Your task to perform on an android device: Empty the shopping cart on bestbuy. Add razer naga to the cart on bestbuy, then select checkout. Image 0: 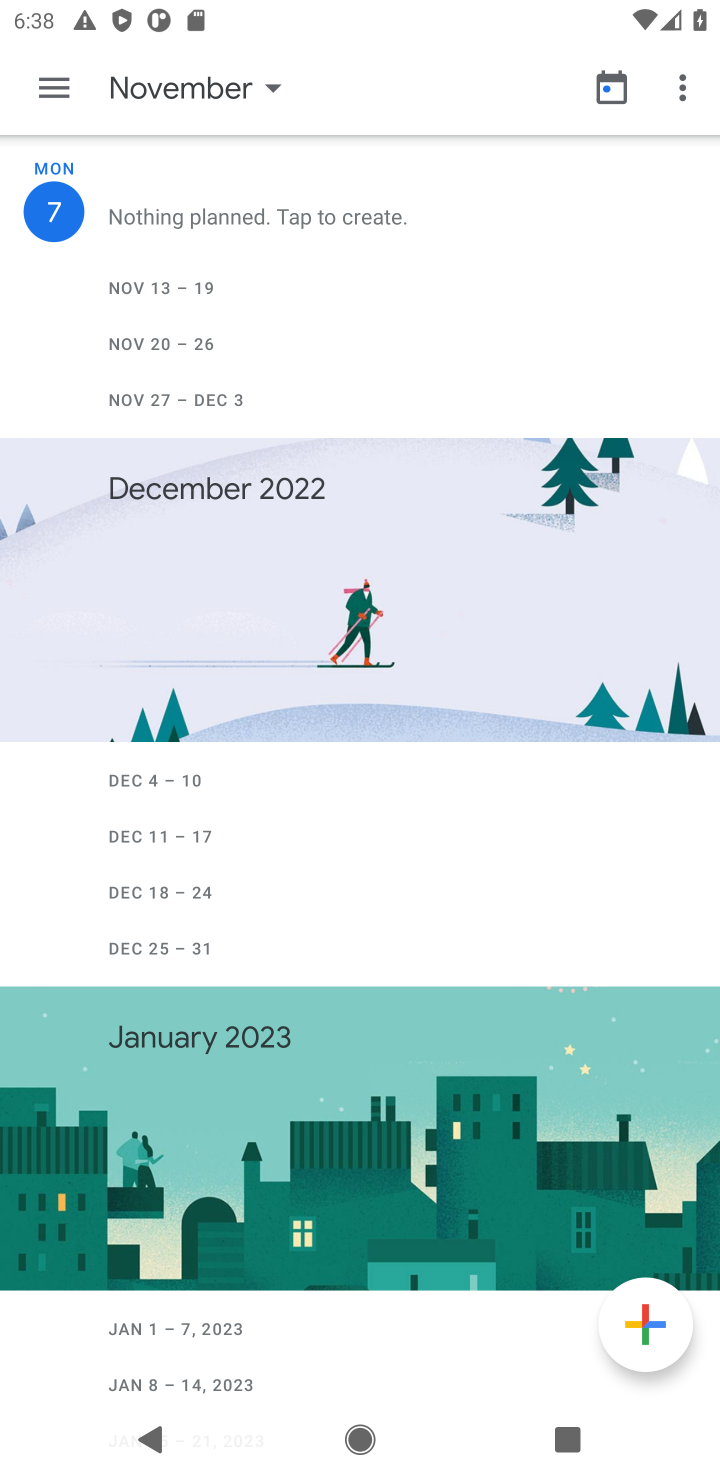
Step 0: press home button
Your task to perform on an android device: Empty the shopping cart on bestbuy. Add razer naga to the cart on bestbuy, then select checkout. Image 1: 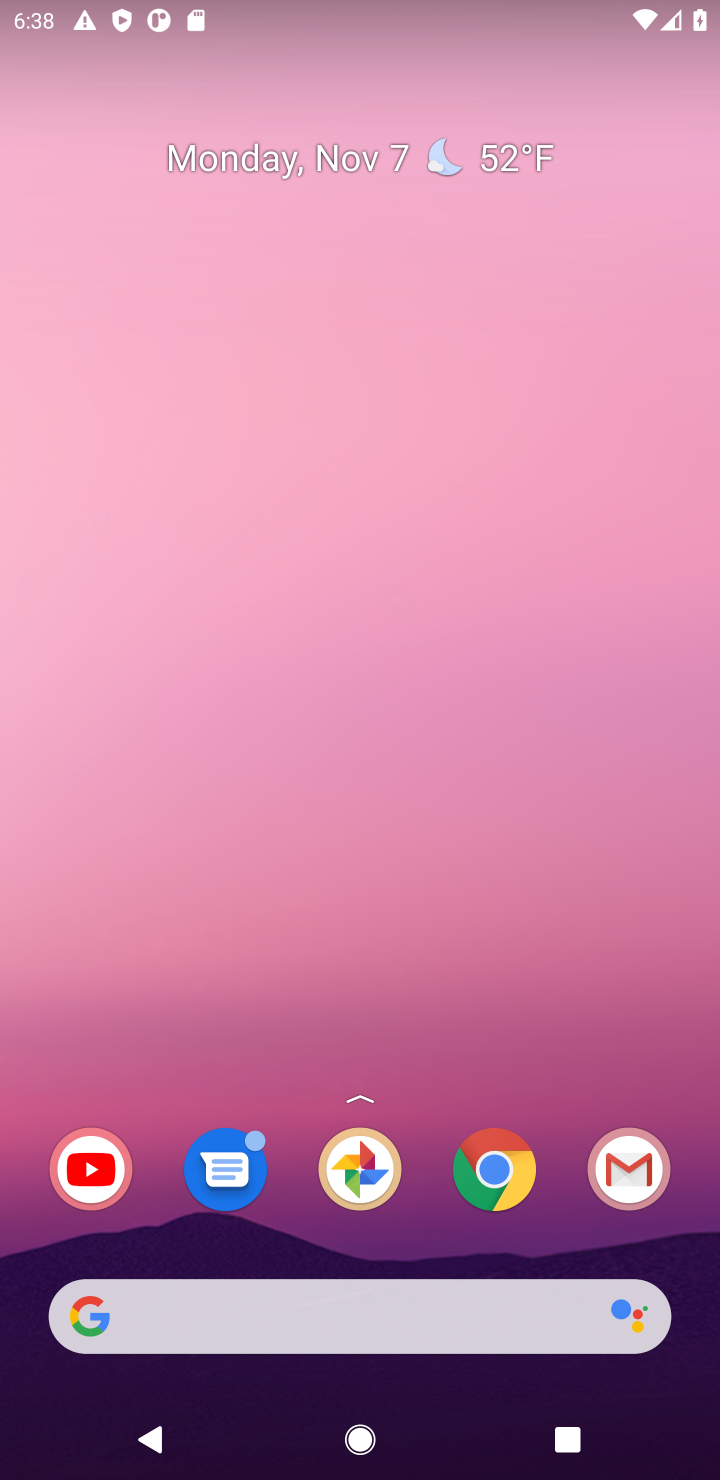
Step 1: click (497, 1201)
Your task to perform on an android device: Empty the shopping cart on bestbuy. Add razer naga to the cart on bestbuy, then select checkout. Image 2: 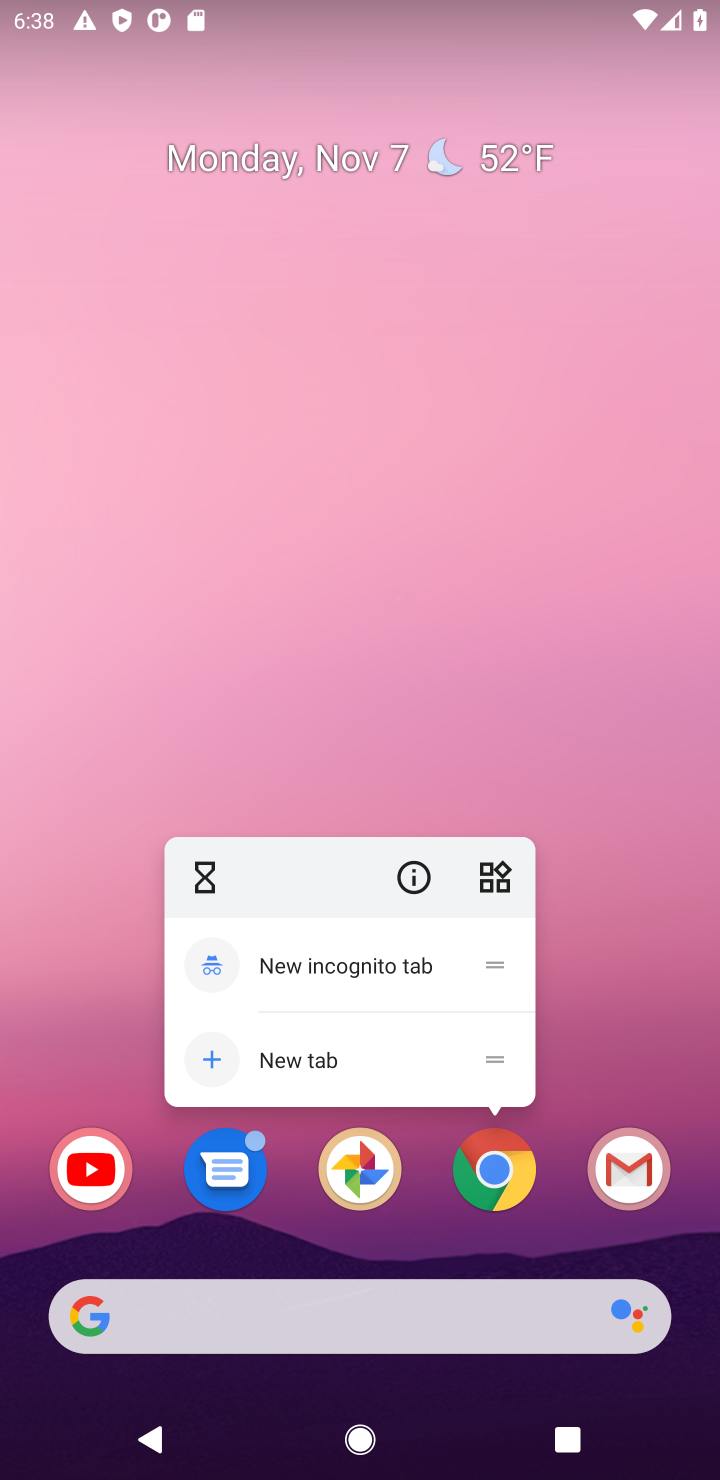
Step 2: click (518, 1167)
Your task to perform on an android device: Empty the shopping cart on bestbuy. Add razer naga to the cart on bestbuy, then select checkout. Image 3: 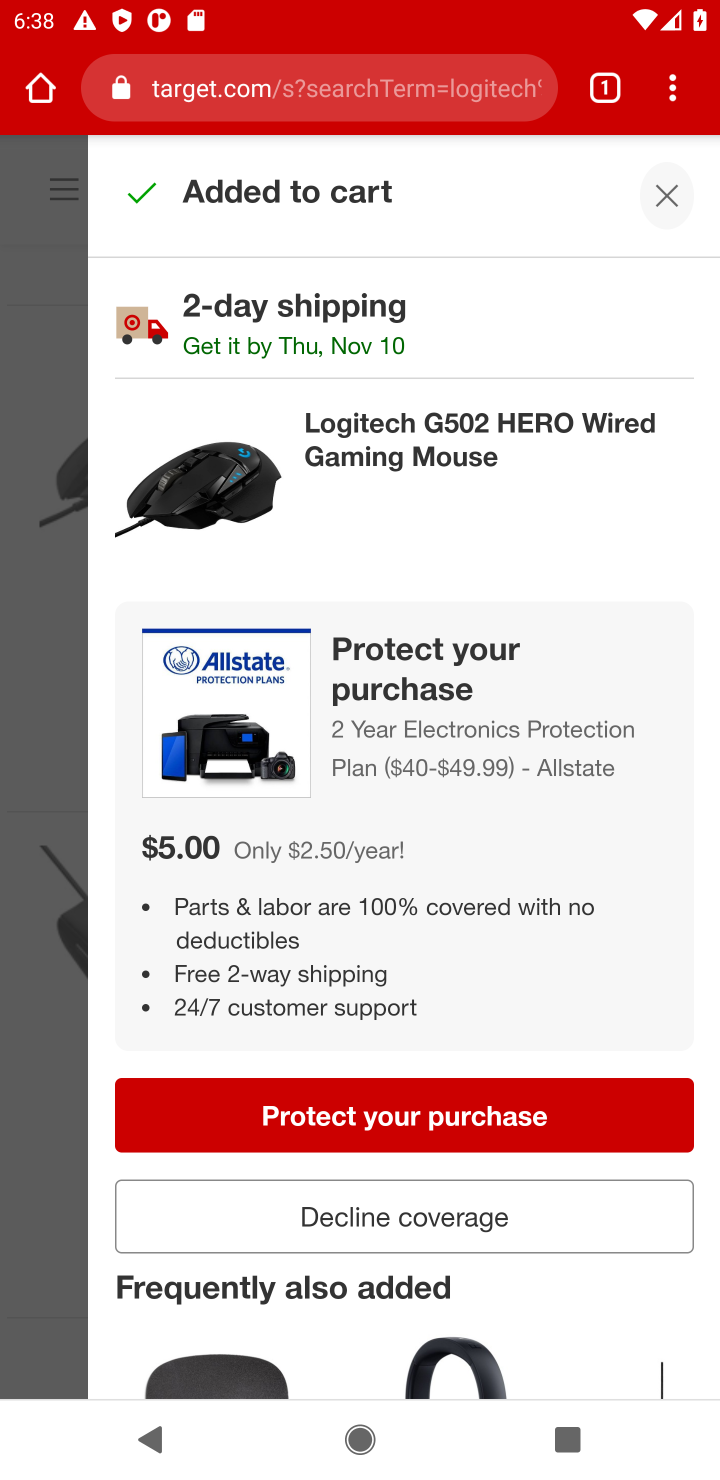
Step 3: click (595, 86)
Your task to perform on an android device: Empty the shopping cart on bestbuy. Add razer naga to the cart on bestbuy, then select checkout. Image 4: 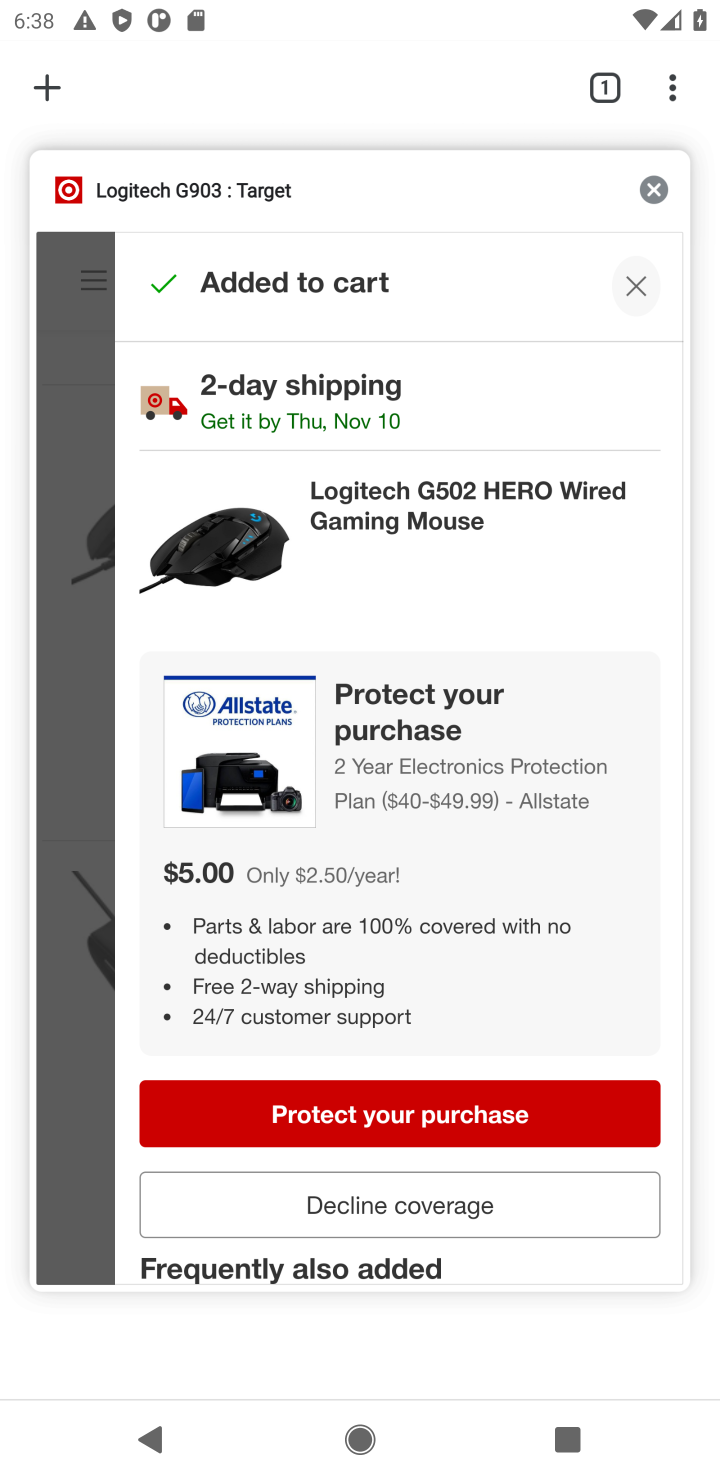
Step 4: click (44, 92)
Your task to perform on an android device: Empty the shopping cart on bestbuy. Add razer naga to the cart on bestbuy, then select checkout. Image 5: 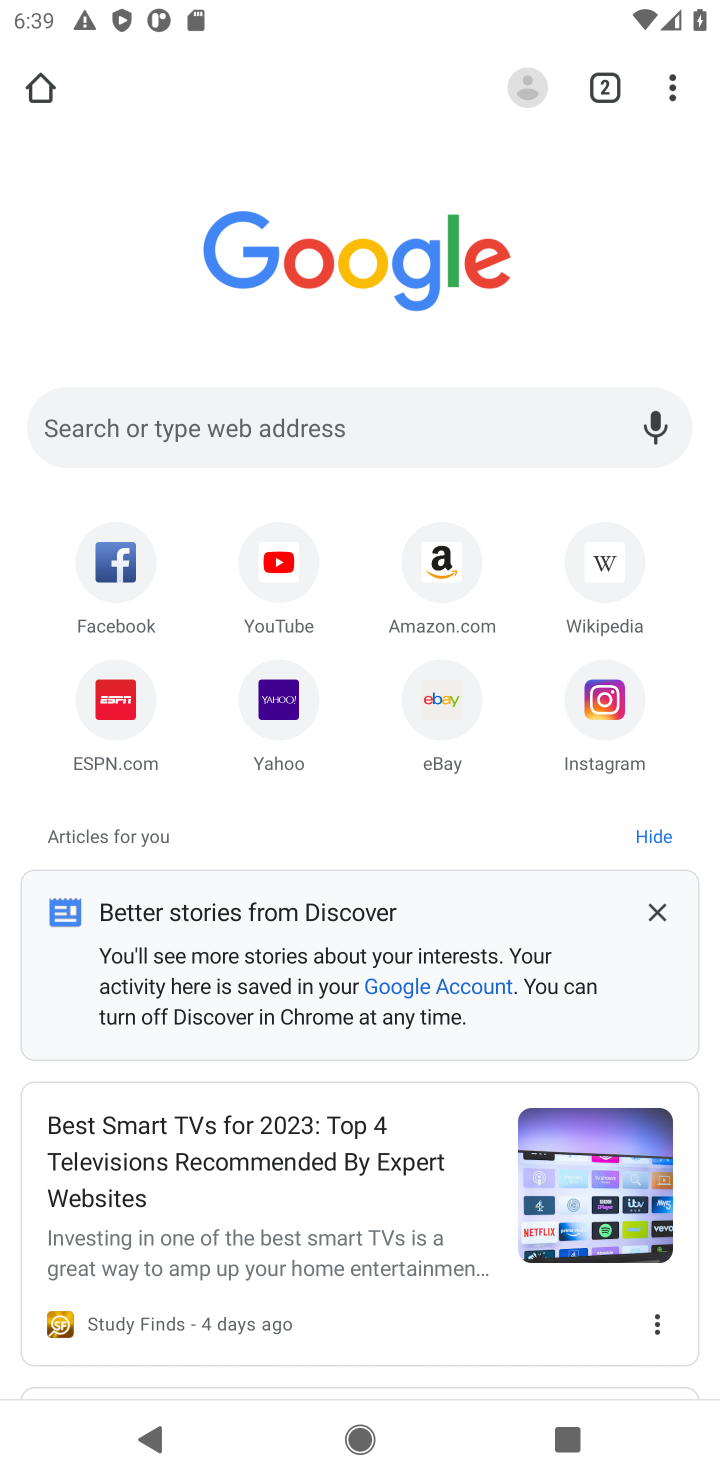
Step 5: click (170, 427)
Your task to perform on an android device: Empty the shopping cart on bestbuy. Add razer naga to the cart on bestbuy, then select checkout. Image 6: 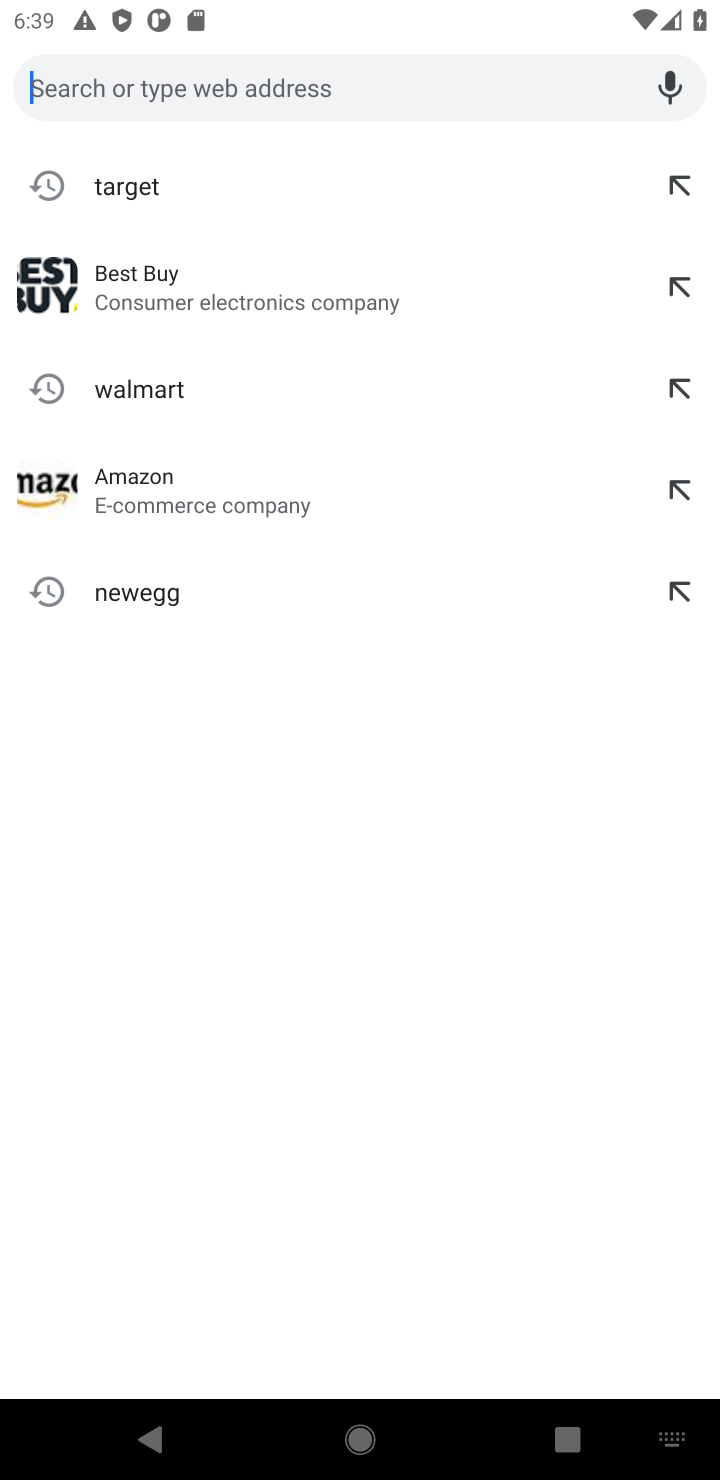
Step 6: click (175, 285)
Your task to perform on an android device: Empty the shopping cart on bestbuy. Add razer naga to the cart on bestbuy, then select checkout. Image 7: 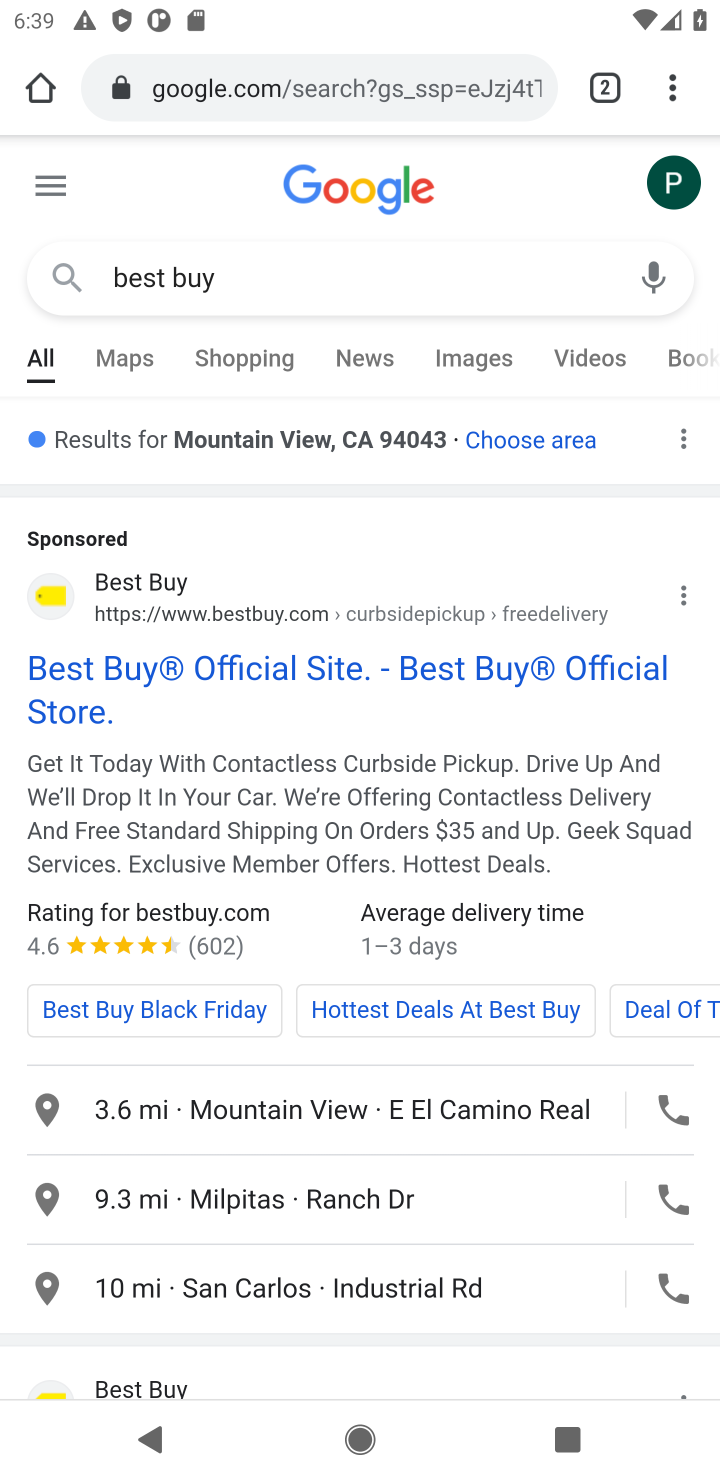
Step 7: drag from (266, 1263) to (256, 789)
Your task to perform on an android device: Empty the shopping cart on bestbuy. Add razer naga to the cart on bestbuy, then select checkout. Image 8: 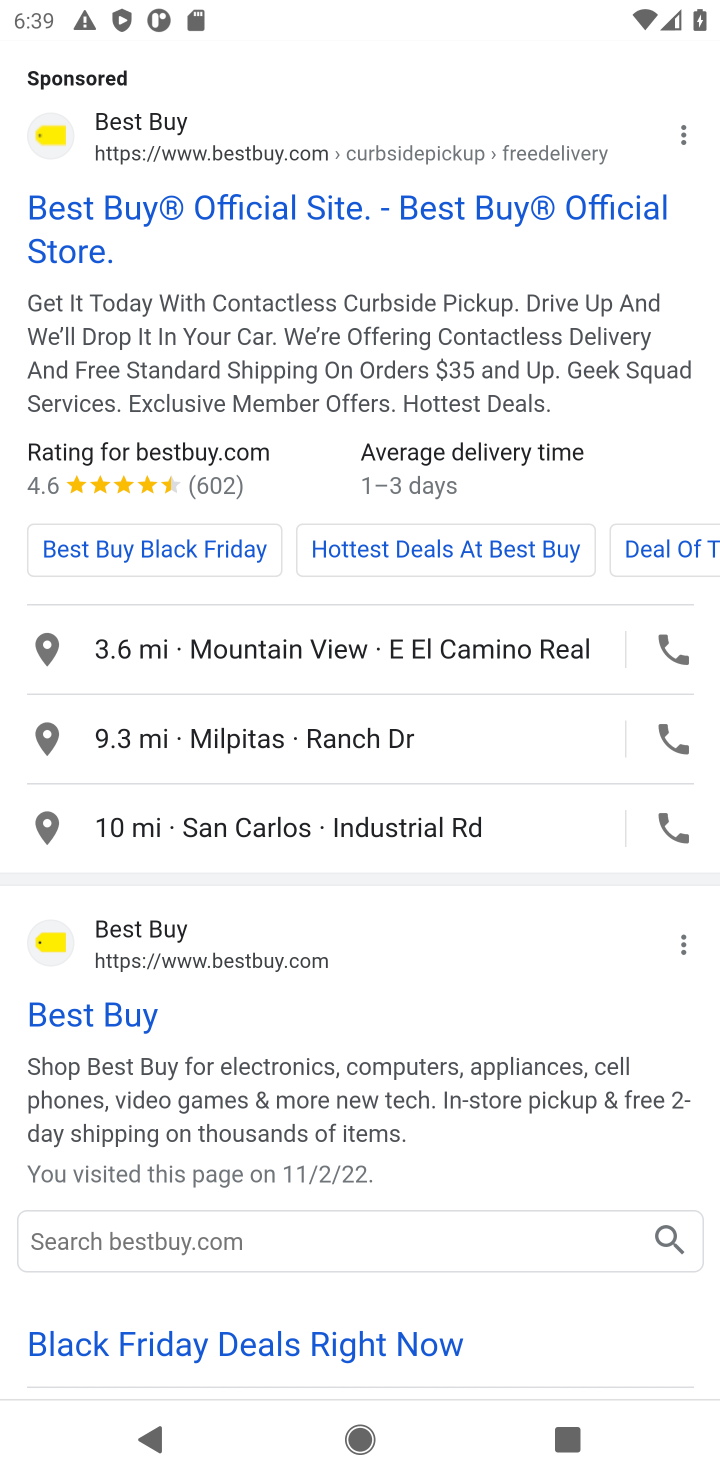
Step 8: click (89, 1236)
Your task to perform on an android device: Empty the shopping cart on bestbuy. Add razer naga to the cart on bestbuy, then select checkout. Image 9: 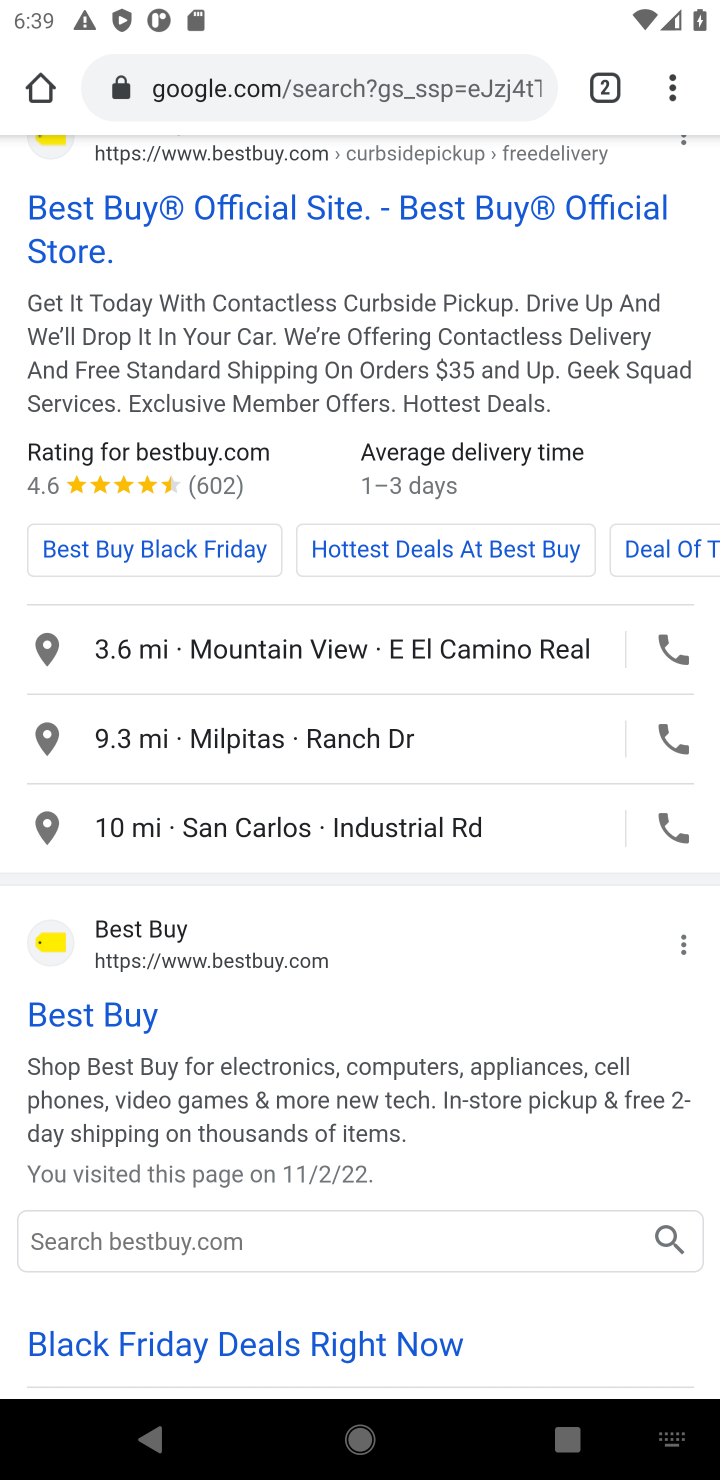
Step 9: type "razer naga"
Your task to perform on an android device: Empty the shopping cart on bestbuy. Add razer naga to the cart on bestbuy, then select checkout. Image 10: 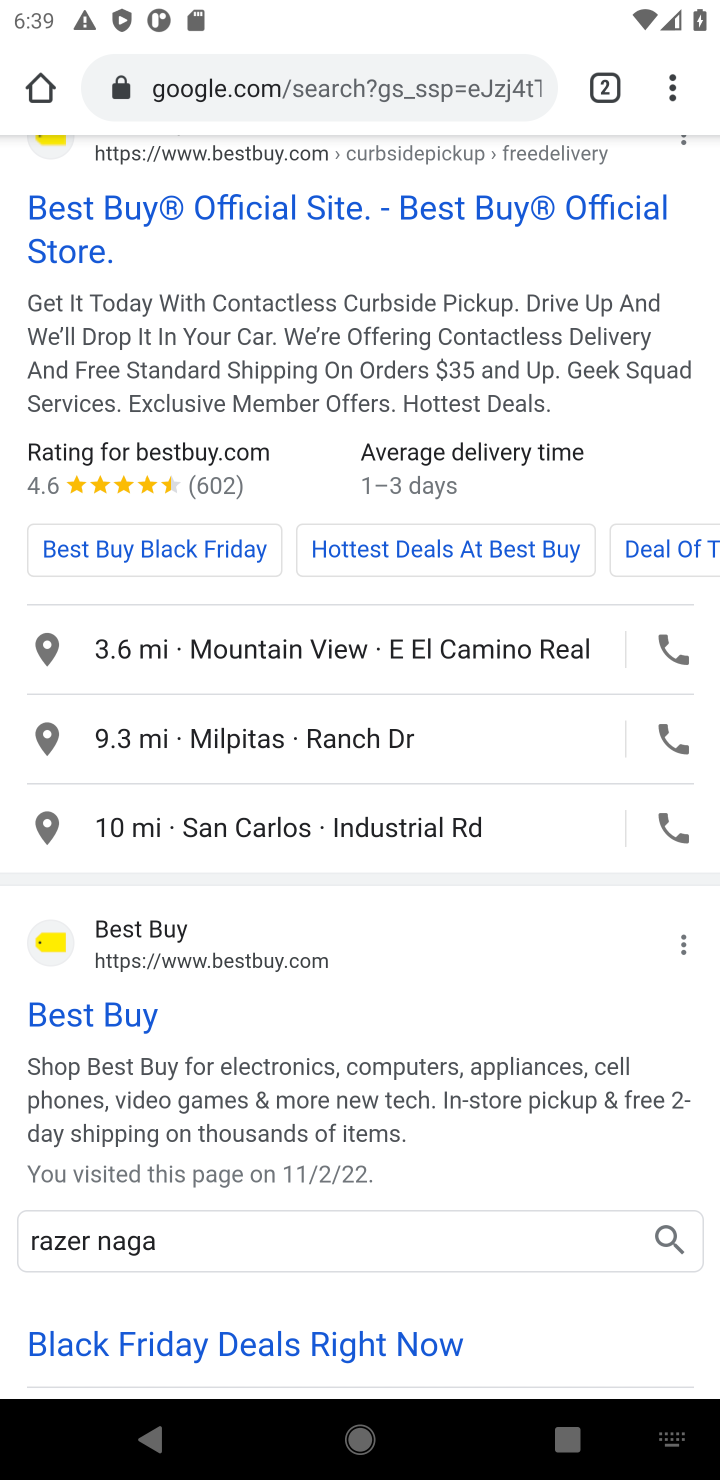
Step 10: click (662, 1237)
Your task to perform on an android device: Empty the shopping cart on bestbuy. Add razer naga to the cart on bestbuy, then select checkout. Image 11: 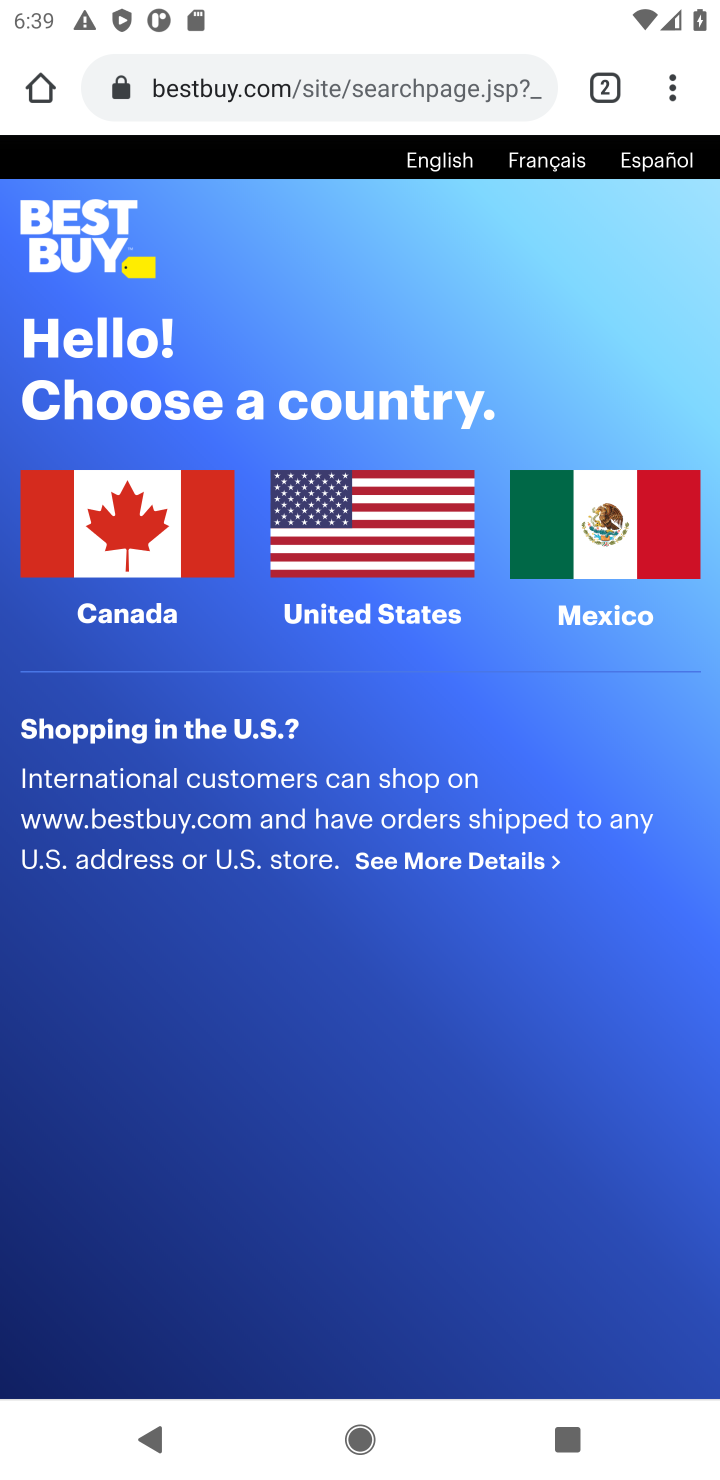
Step 11: click (356, 541)
Your task to perform on an android device: Empty the shopping cart on bestbuy. Add razer naga to the cart on bestbuy, then select checkout. Image 12: 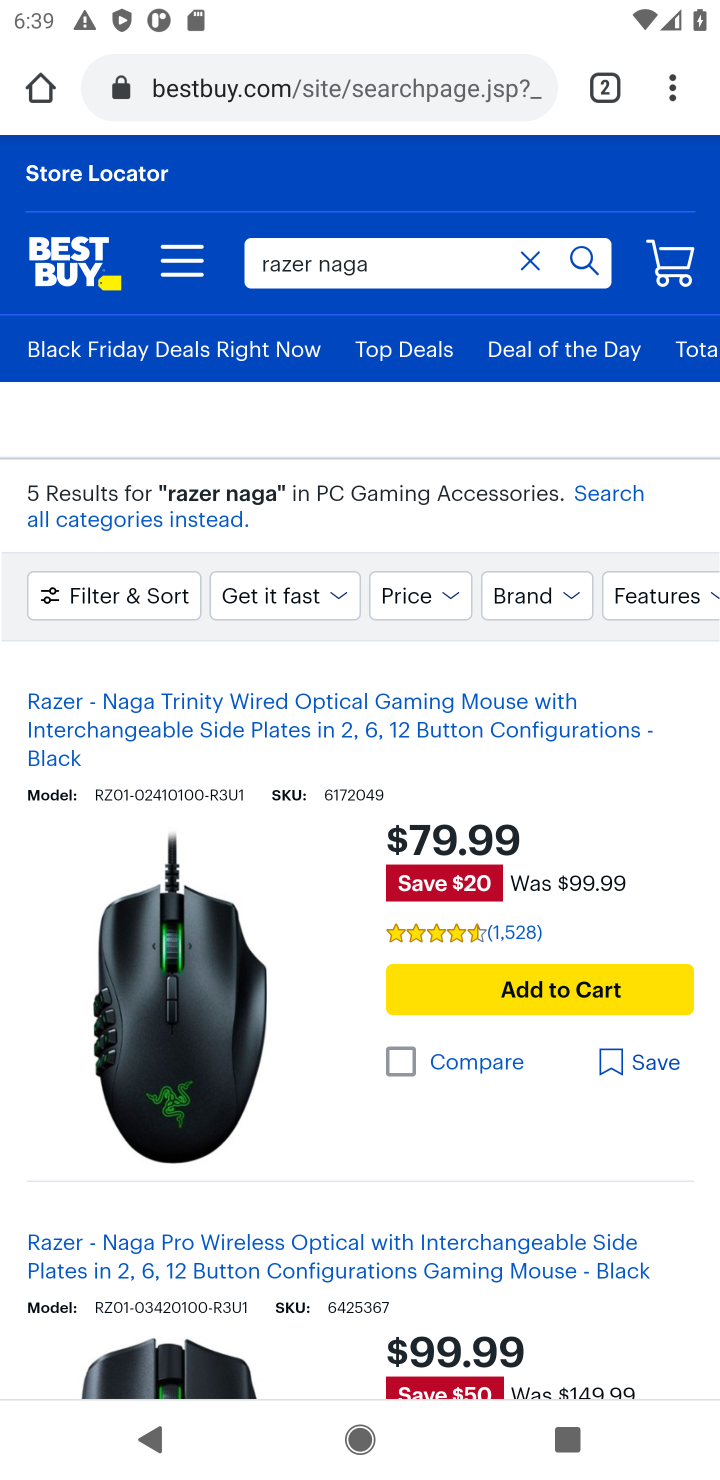
Step 12: click (501, 999)
Your task to perform on an android device: Empty the shopping cart on bestbuy. Add razer naga to the cart on bestbuy, then select checkout. Image 13: 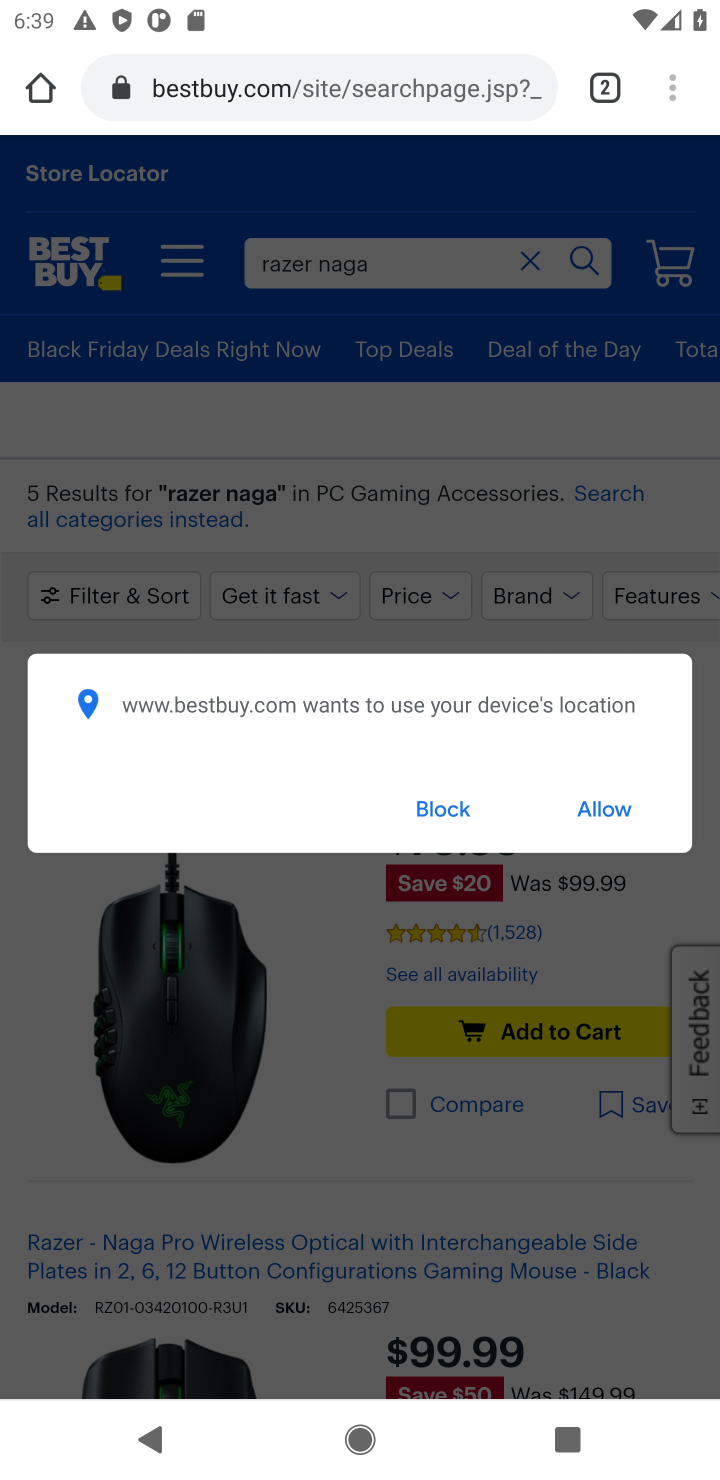
Step 13: click (443, 805)
Your task to perform on an android device: Empty the shopping cart on bestbuy. Add razer naga to the cart on bestbuy, then select checkout. Image 14: 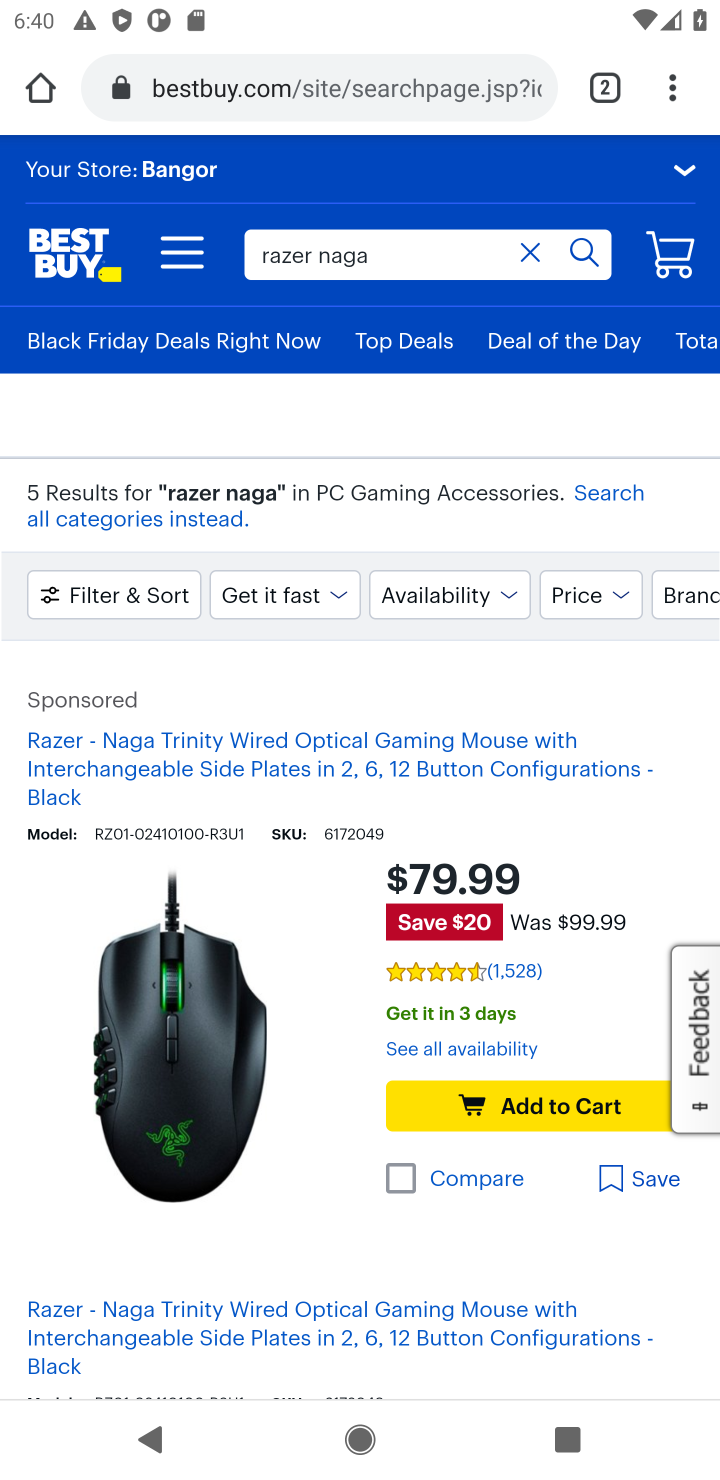
Step 14: click (548, 1108)
Your task to perform on an android device: Empty the shopping cart on bestbuy. Add razer naga to the cart on bestbuy, then select checkout. Image 15: 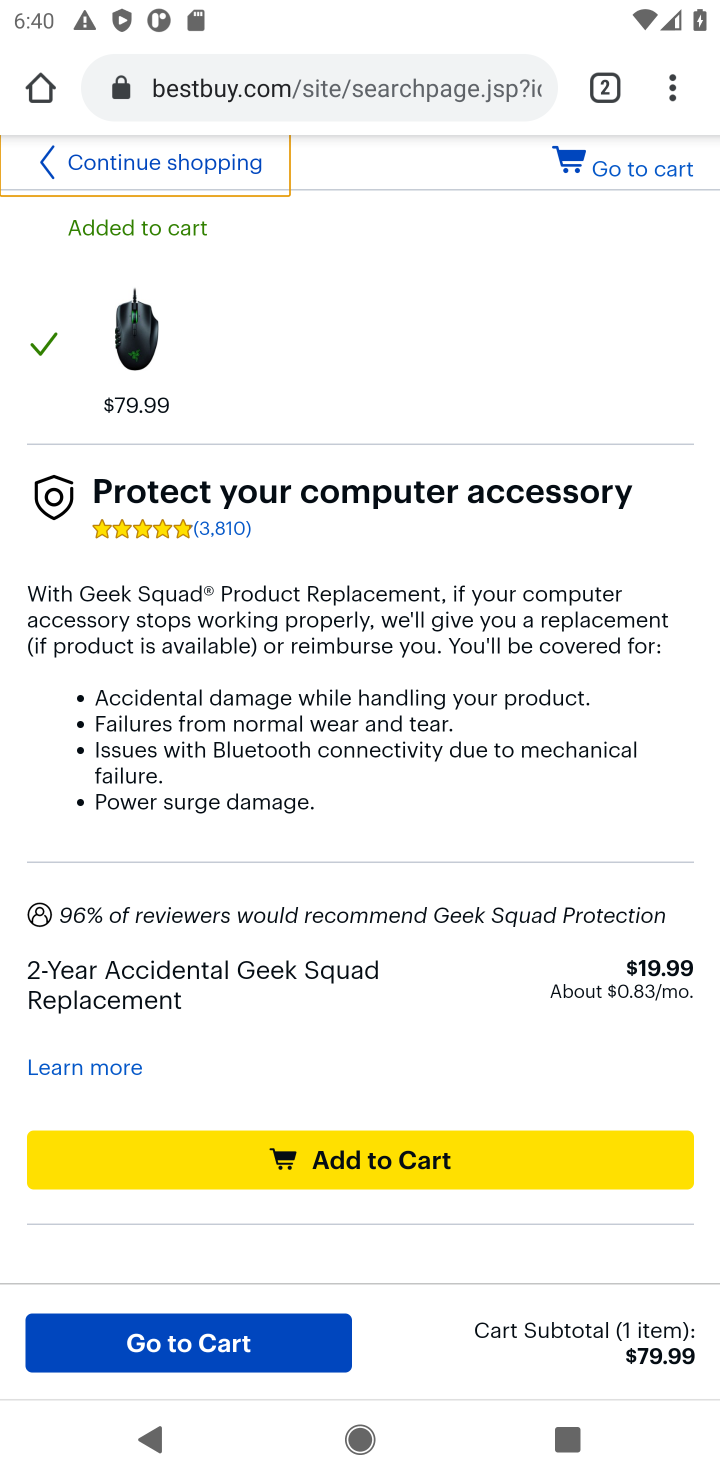
Step 15: click (154, 1352)
Your task to perform on an android device: Empty the shopping cart on bestbuy. Add razer naga to the cart on bestbuy, then select checkout. Image 16: 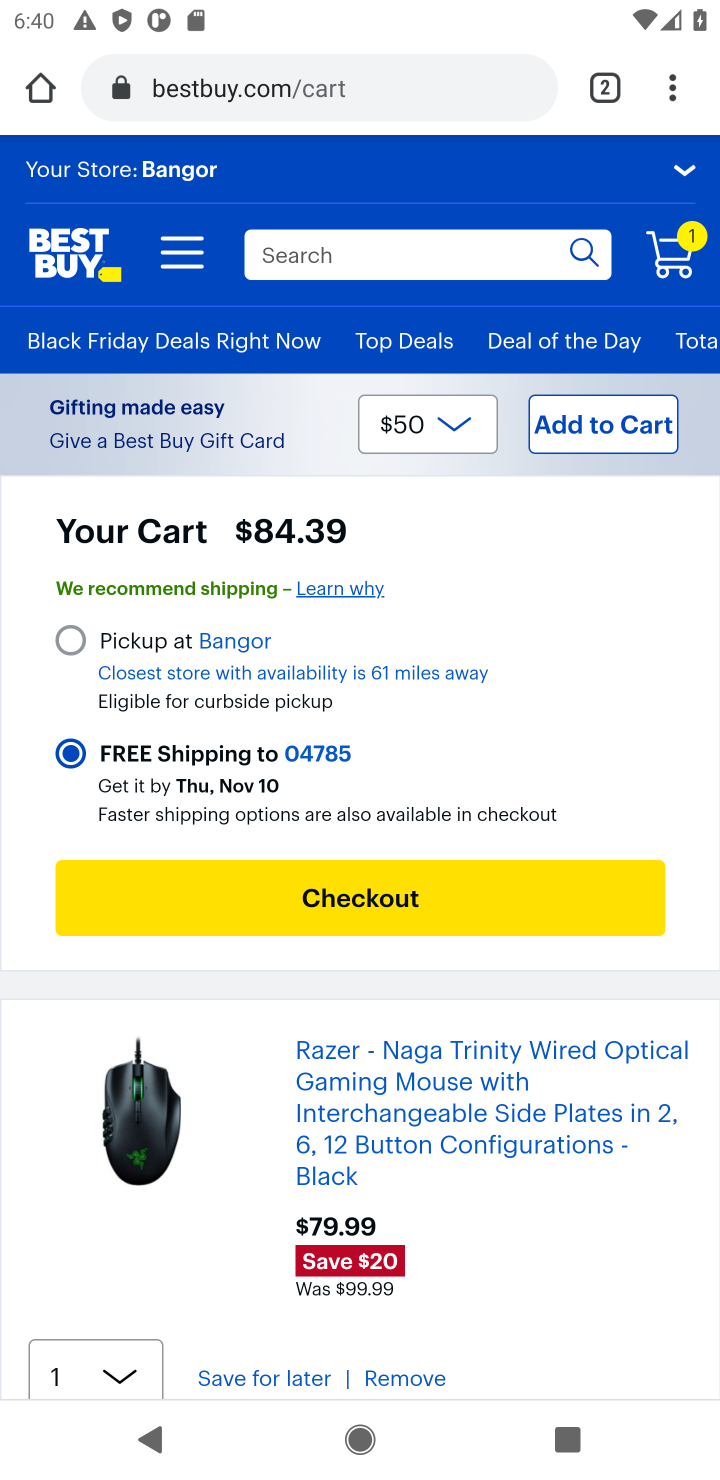
Step 16: click (339, 896)
Your task to perform on an android device: Empty the shopping cart on bestbuy. Add razer naga to the cart on bestbuy, then select checkout. Image 17: 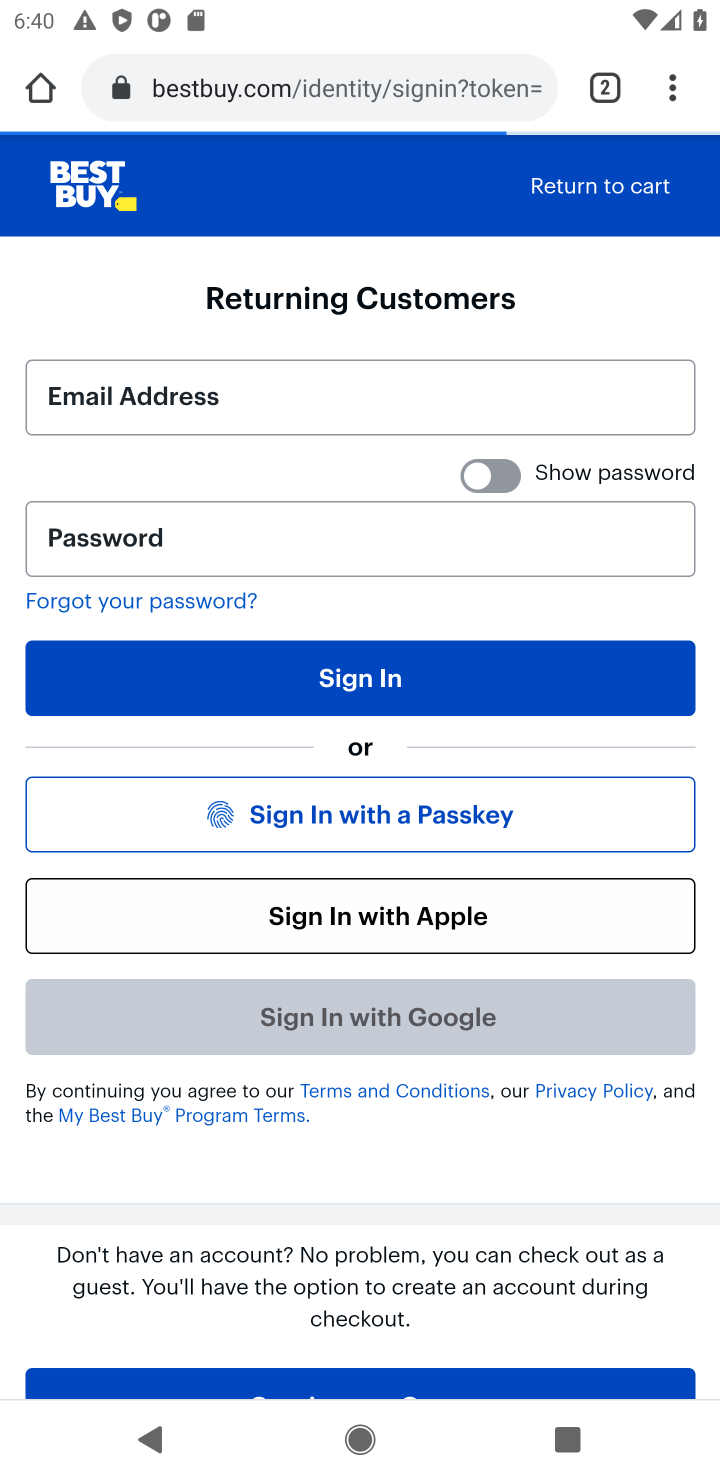
Step 17: task complete